Your task to perform on an android device: Open Google Maps Image 0: 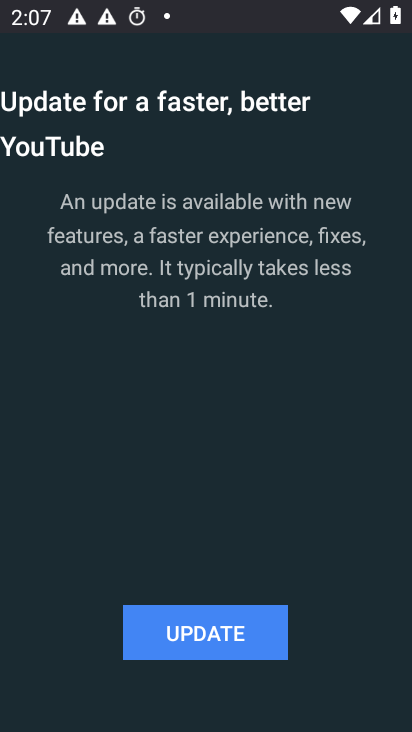
Step 0: press home button
Your task to perform on an android device: Open Google Maps Image 1: 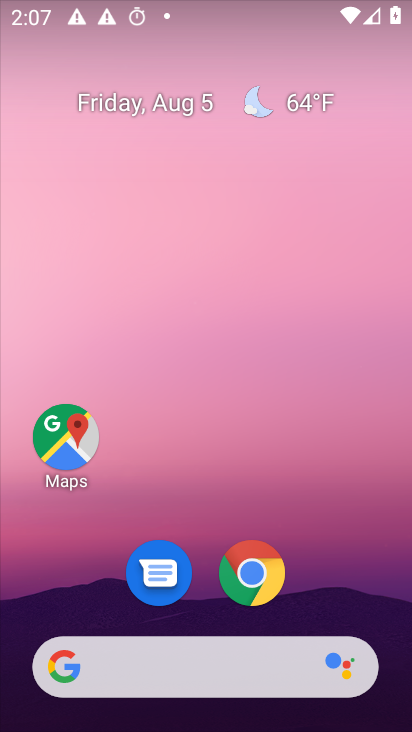
Step 1: drag from (342, 579) to (351, 137)
Your task to perform on an android device: Open Google Maps Image 2: 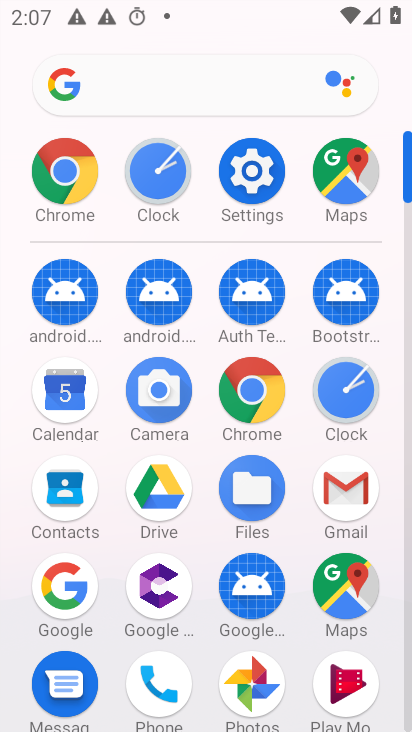
Step 2: click (363, 174)
Your task to perform on an android device: Open Google Maps Image 3: 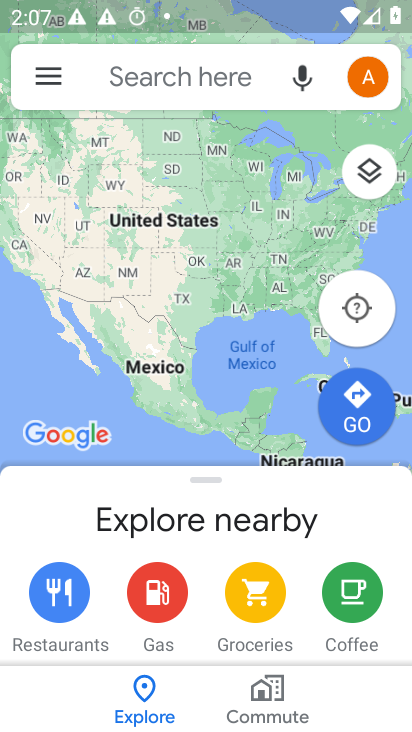
Step 3: task complete